Your task to perform on an android device: Go to ESPN.com Image 0: 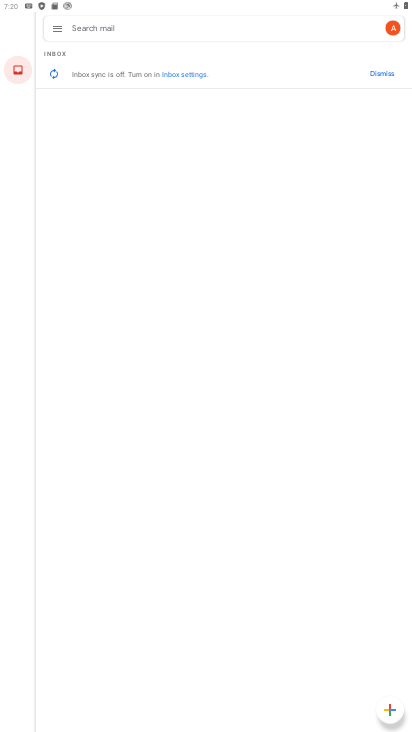
Step 0: press home button
Your task to perform on an android device: Go to ESPN.com Image 1: 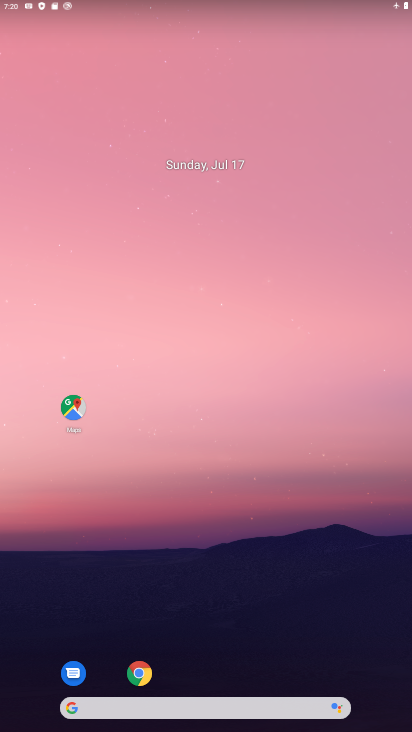
Step 1: drag from (276, 615) to (74, 4)
Your task to perform on an android device: Go to ESPN.com Image 2: 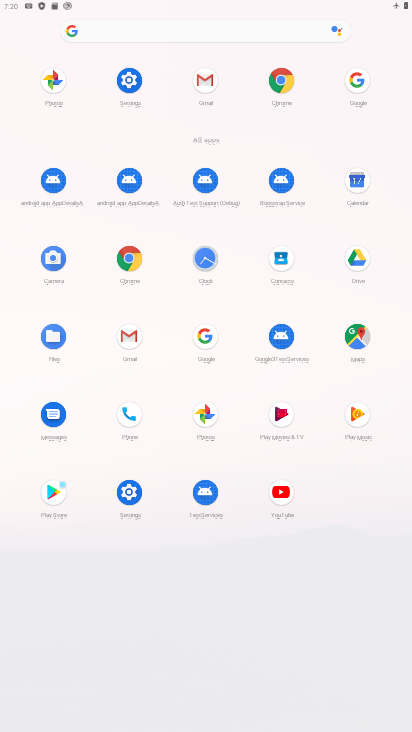
Step 2: click (278, 81)
Your task to perform on an android device: Go to ESPN.com Image 3: 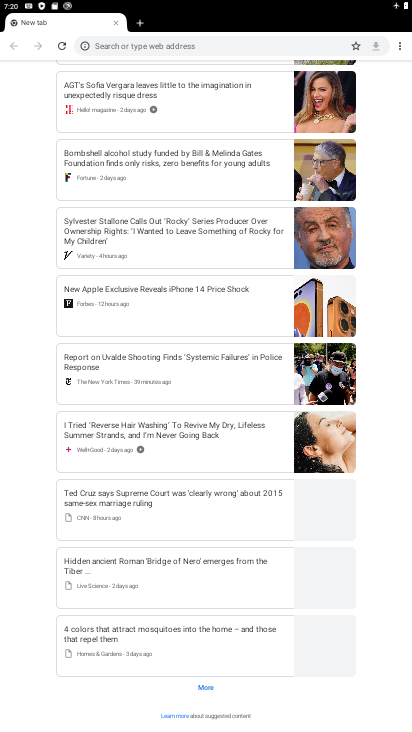
Step 3: drag from (235, 150) to (311, 642)
Your task to perform on an android device: Go to ESPN.com Image 4: 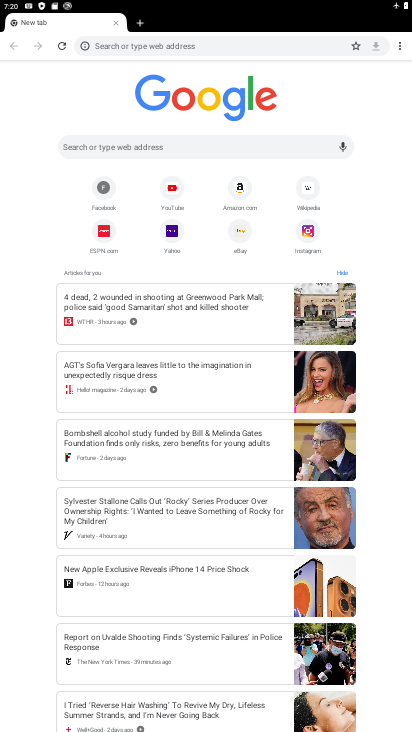
Step 4: click (106, 238)
Your task to perform on an android device: Go to ESPN.com Image 5: 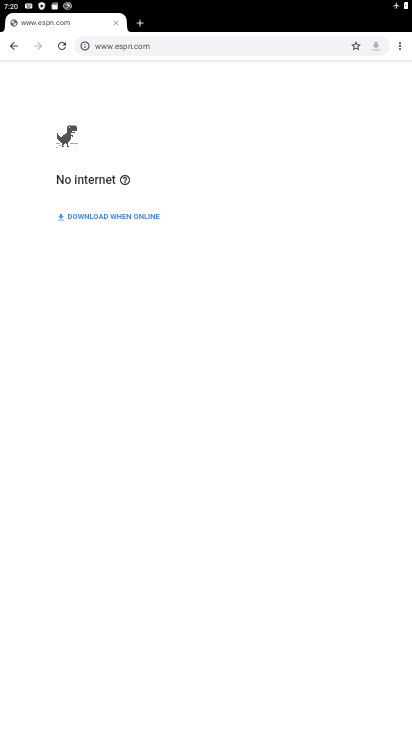
Step 5: task complete